Your task to perform on an android device: open app "Google Docs" (install if not already installed) Image 0: 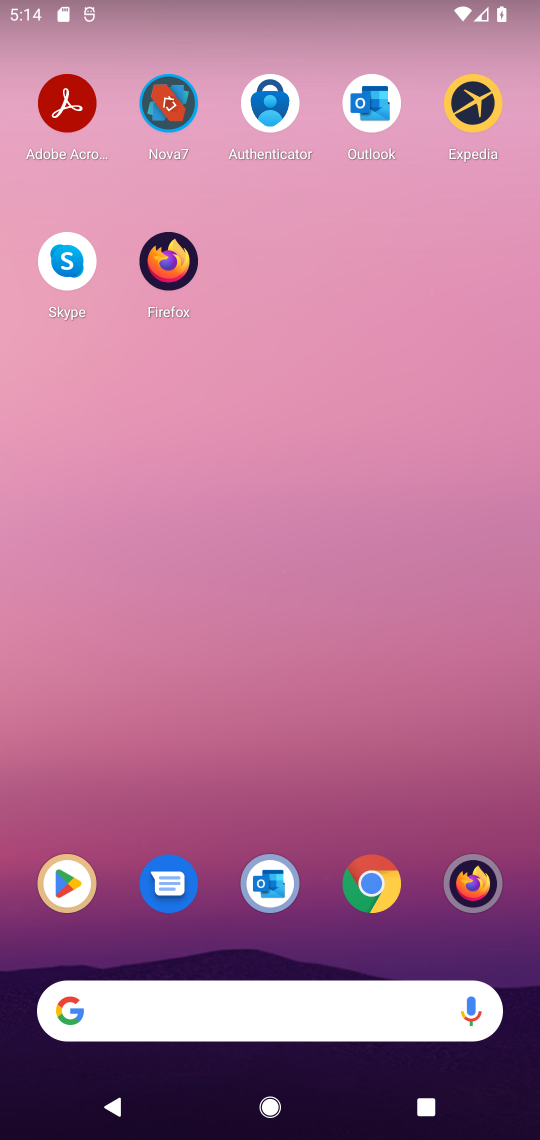
Step 0: drag from (237, 988) to (256, 616)
Your task to perform on an android device: open app "Google Docs" (install if not already installed) Image 1: 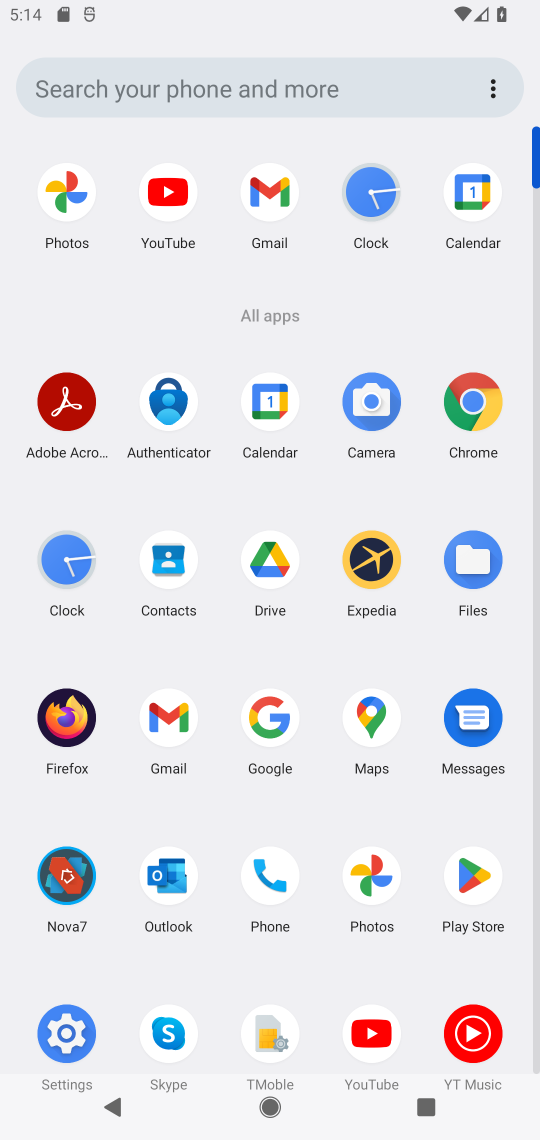
Step 1: click (472, 884)
Your task to perform on an android device: open app "Google Docs" (install if not already installed) Image 2: 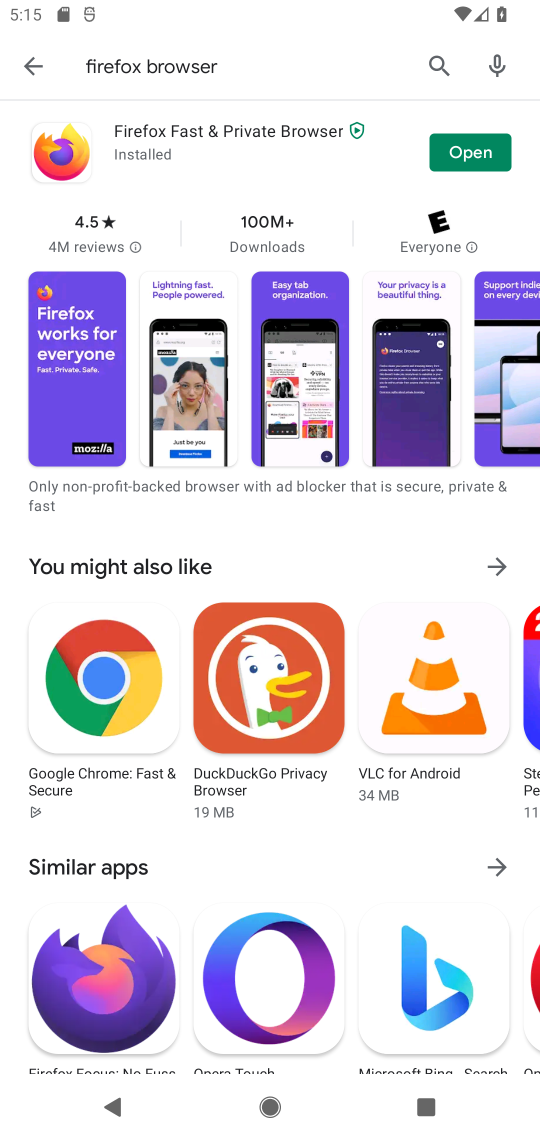
Step 2: click (35, 69)
Your task to perform on an android device: open app "Google Docs" (install if not already installed) Image 3: 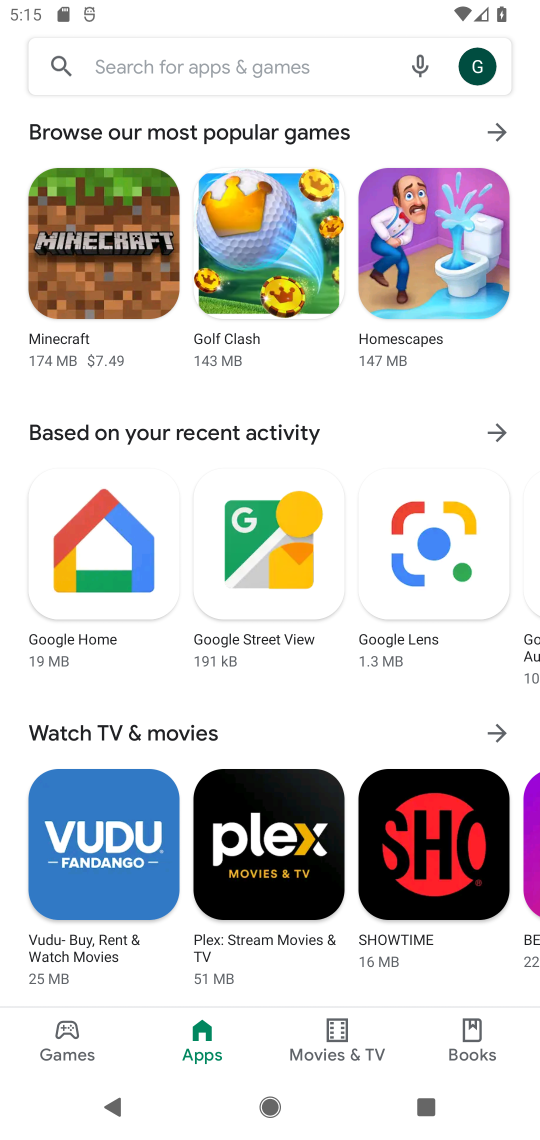
Step 3: click (163, 71)
Your task to perform on an android device: open app "Google Docs" (install if not already installed) Image 4: 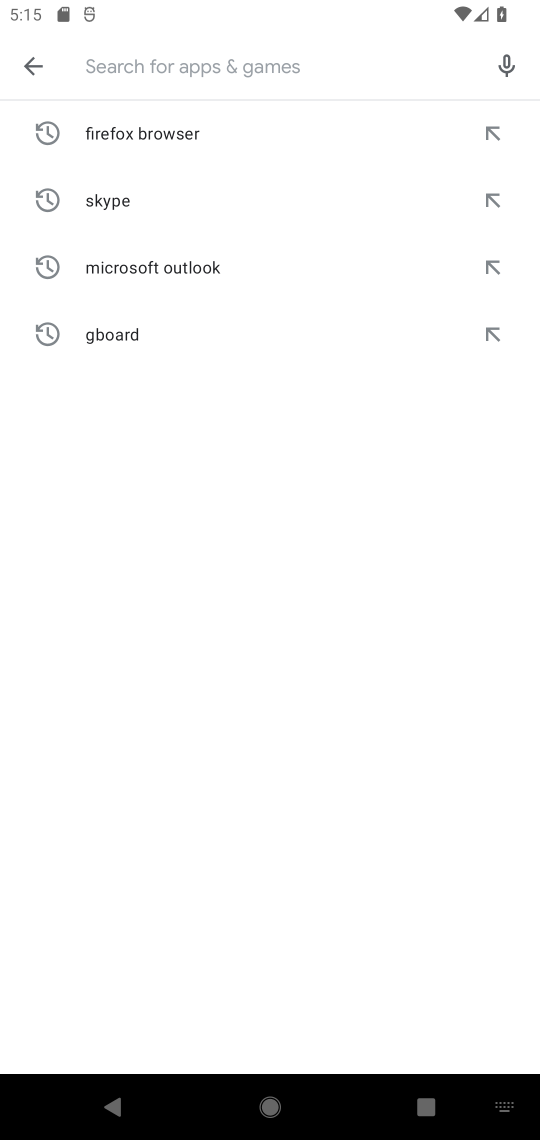
Step 4: type "Google Docs"
Your task to perform on an android device: open app "Google Docs" (install if not already installed) Image 5: 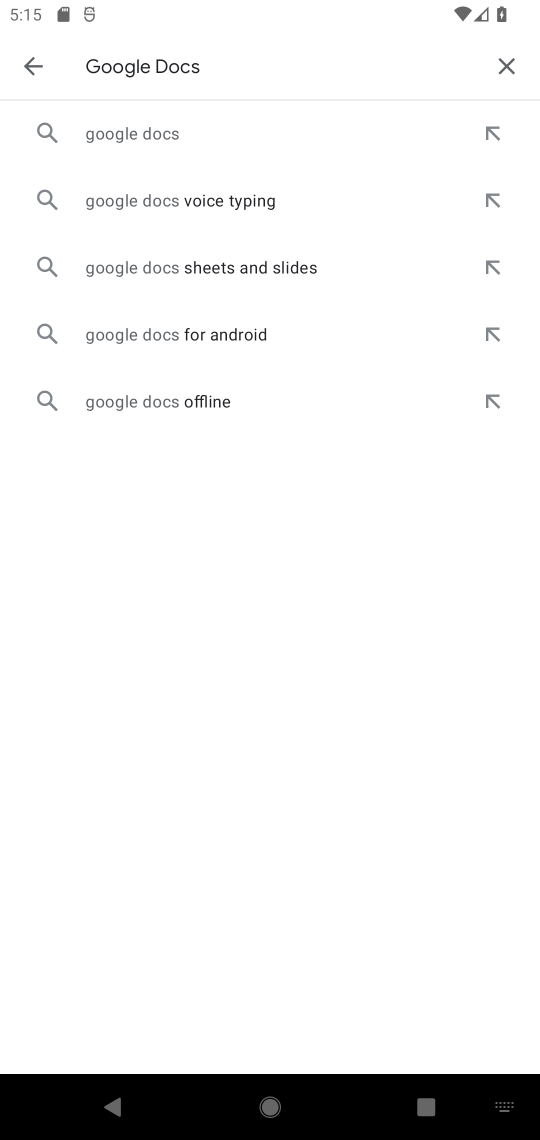
Step 5: click (183, 138)
Your task to perform on an android device: open app "Google Docs" (install if not already installed) Image 6: 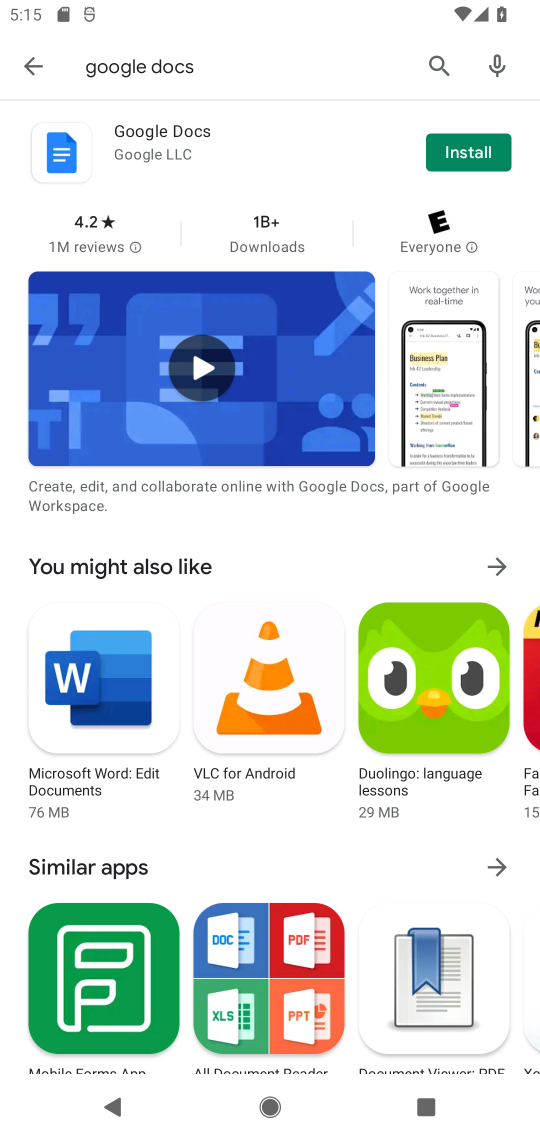
Step 6: click (466, 152)
Your task to perform on an android device: open app "Google Docs" (install if not already installed) Image 7: 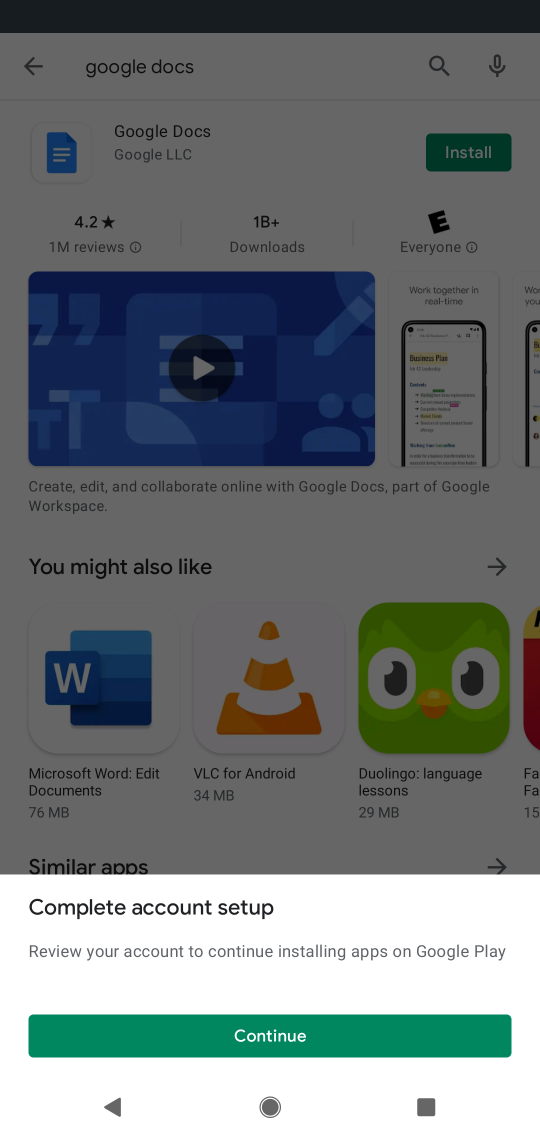
Step 7: click (289, 1022)
Your task to perform on an android device: open app "Google Docs" (install if not already installed) Image 8: 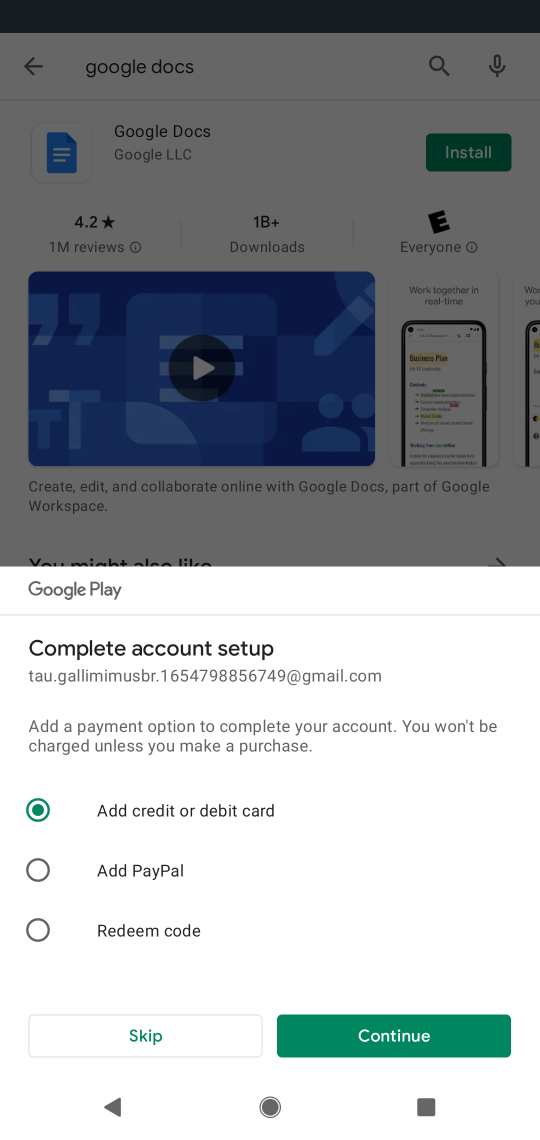
Step 8: click (153, 1039)
Your task to perform on an android device: open app "Google Docs" (install if not already installed) Image 9: 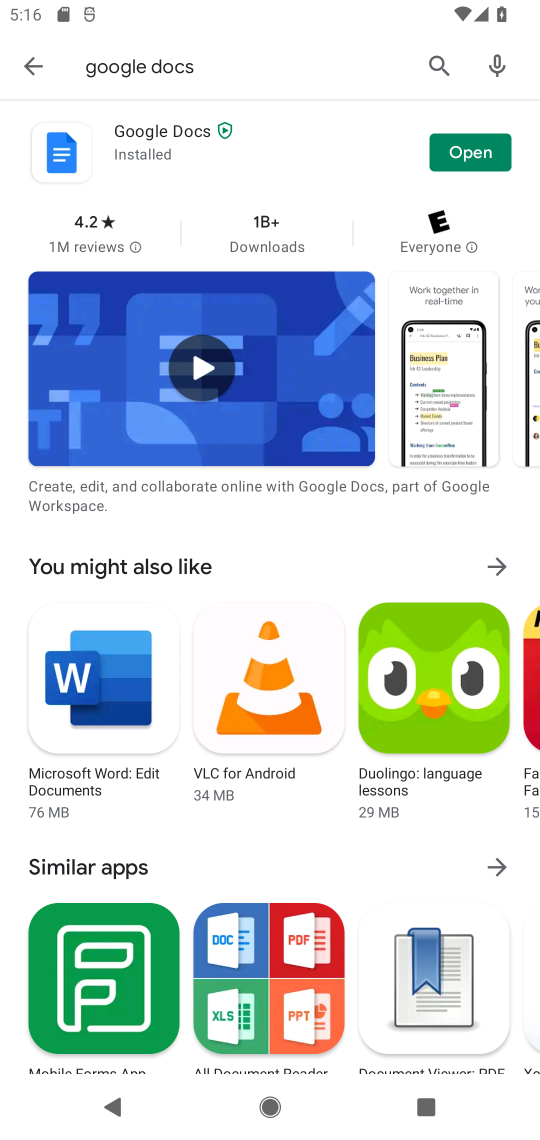
Step 9: click (465, 169)
Your task to perform on an android device: open app "Google Docs" (install if not already installed) Image 10: 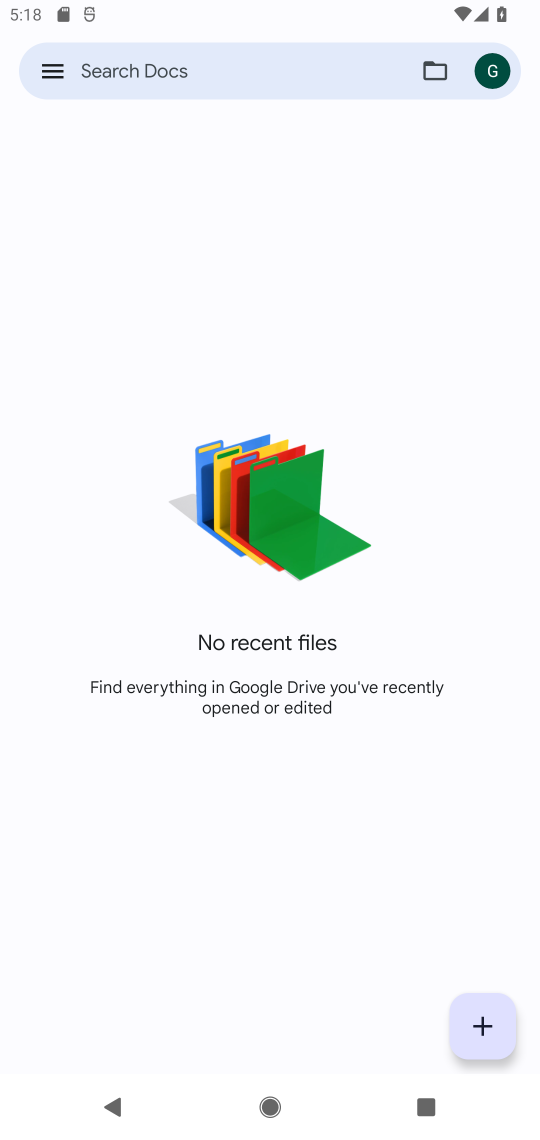
Step 10: task complete